Your task to perform on an android device: Play the last video I watched on Youtube Image 0: 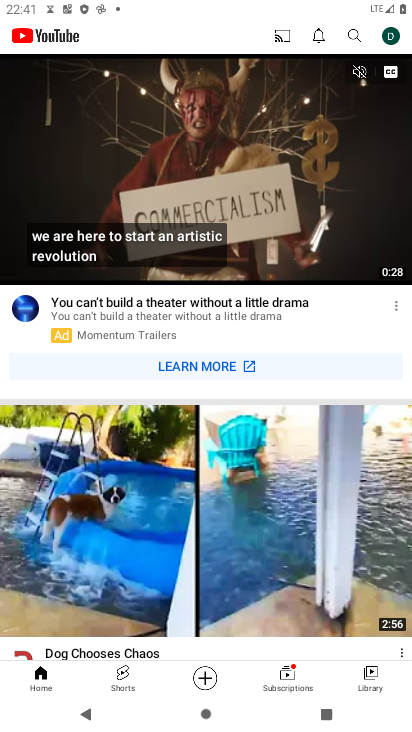
Step 0: press home button
Your task to perform on an android device: Play the last video I watched on Youtube Image 1: 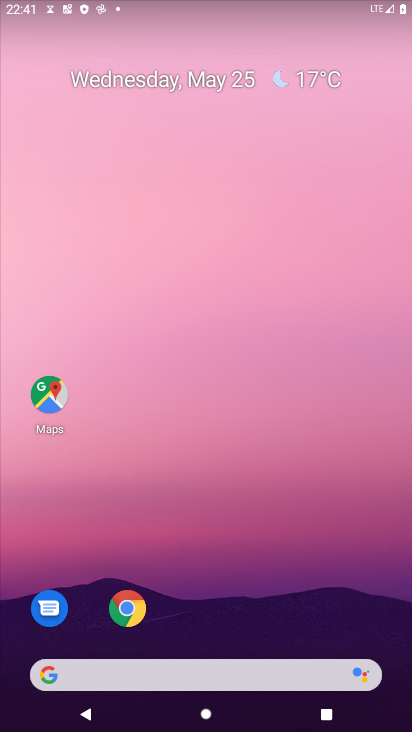
Step 1: drag from (269, 573) to (151, 3)
Your task to perform on an android device: Play the last video I watched on Youtube Image 2: 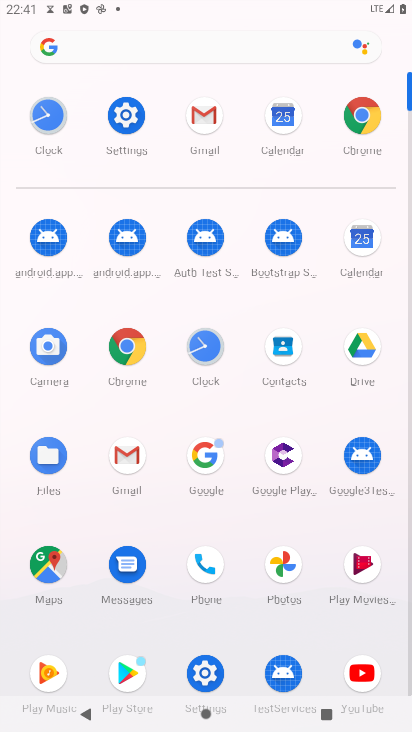
Step 2: click (370, 660)
Your task to perform on an android device: Play the last video I watched on Youtube Image 3: 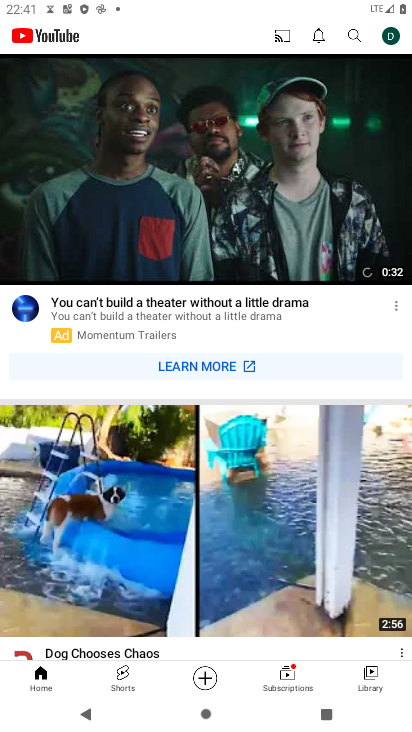
Step 3: click (373, 665)
Your task to perform on an android device: Play the last video I watched on Youtube Image 4: 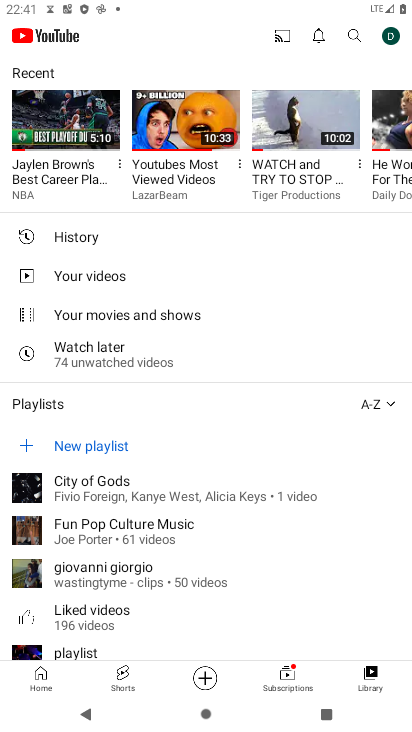
Step 4: click (53, 120)
Your task to perform on an android device: Play the last video I watched on Youtube Image 5: 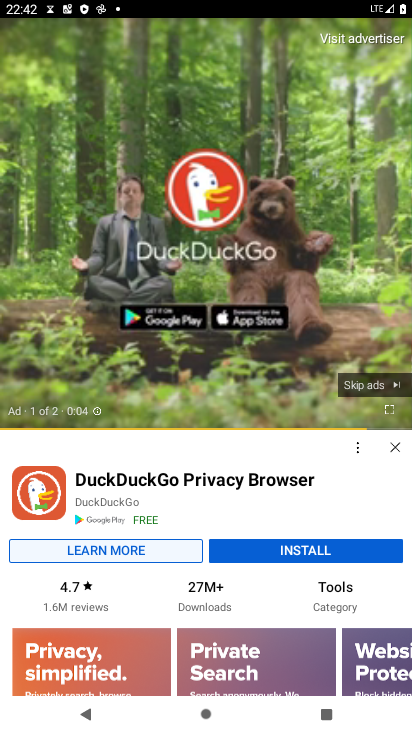
Step 5: click (208, 215)
Your task to perform on an android device: Play the last video I watched on Youtube Image 6: 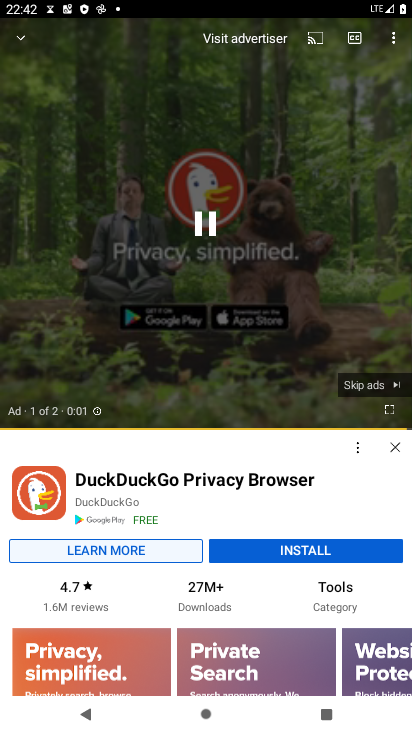
Step 6: click (209, 224)
Your task to perform on an android device: Play the last video I watched on Youtube Image 7: 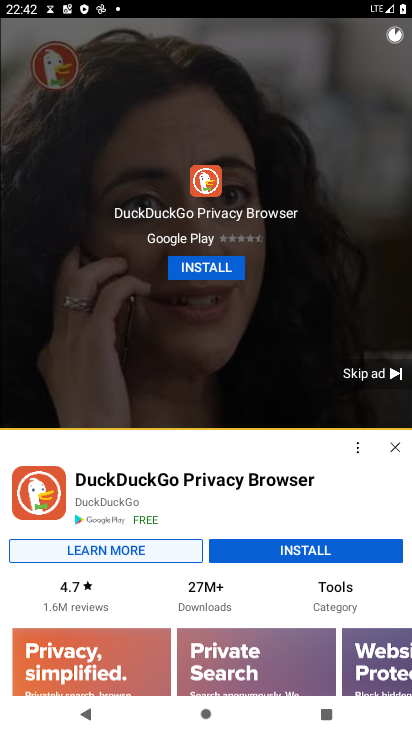
Step 7: task complete